Your task to perform on an android device: Go to Amazon Image 0: 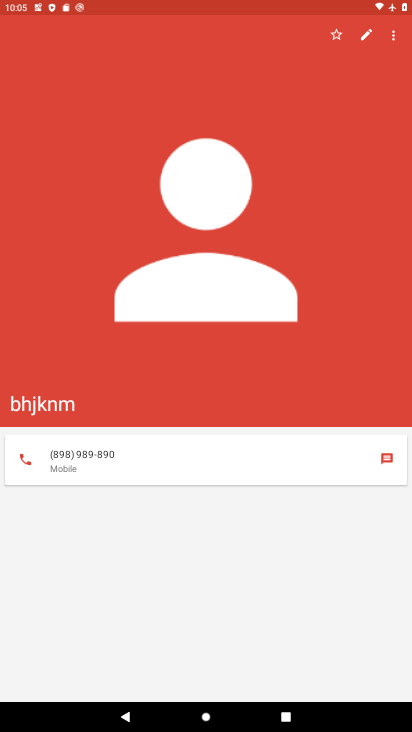
Step 0: press home button
Your task to perform on an android device: Go to Amazon Image 1: 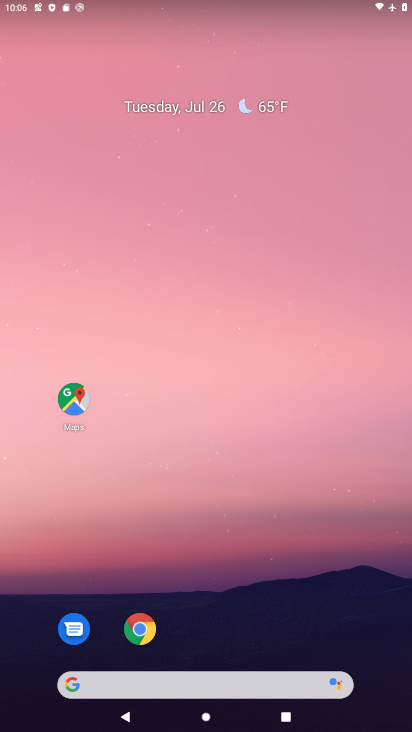
Step 1: drag from (236, 610) to (288, 7)
Your task to perform on an android device: Go to Amazon Image 2: 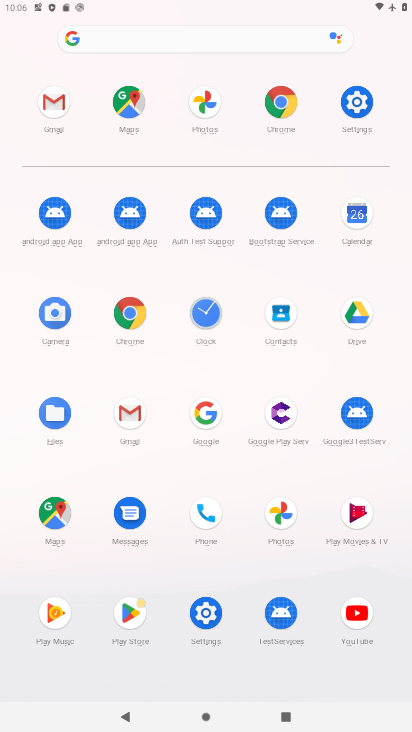
Step 2: click (283, 96)
Your task to perform on an android device: Go to Amazon Image 3: 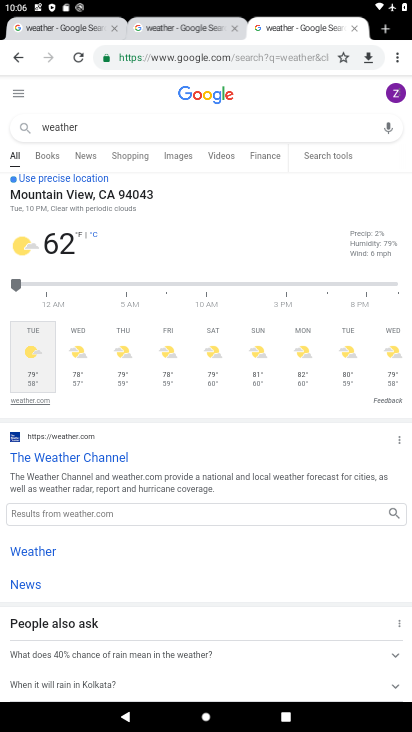
Step 3: click (250, 57)
Your task to perform on an android device: Go to Amazon Image 4: 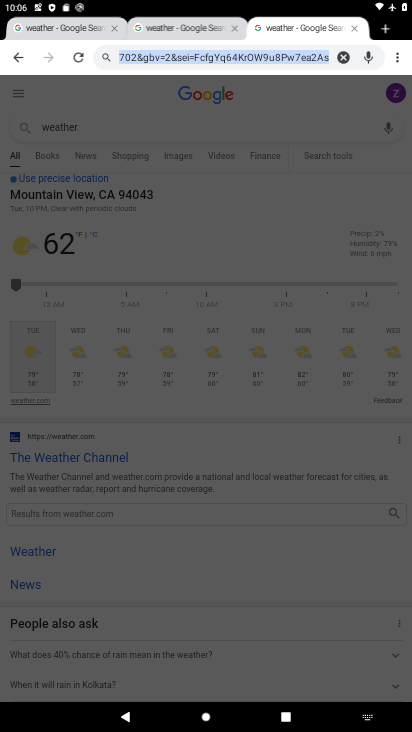
Step 4: type "amazon"
Your task to perform on an android device: Go to Amazon Image 5: 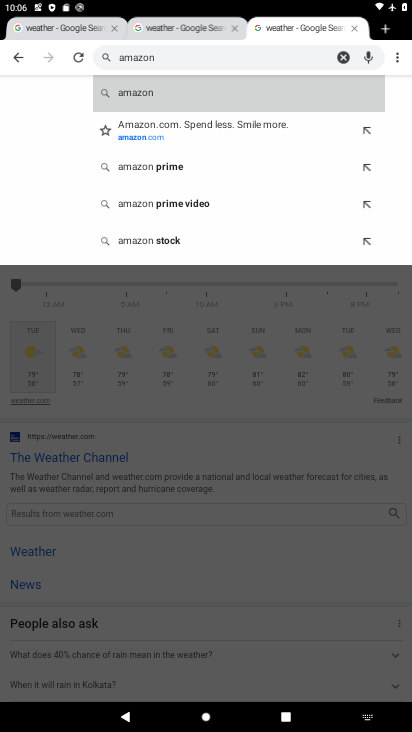
Step 5: click (191, 104)
Your task to perform on an android device: Go to Amazon Image 6: 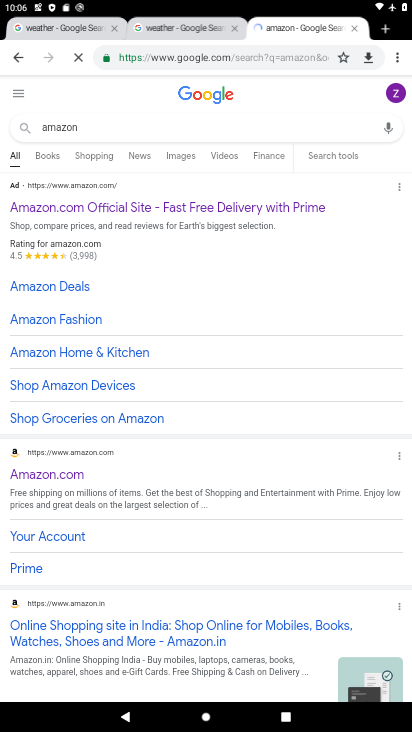
Step 6: click (47, 478)
Your task to perform on an android device: Go to Amazon Image 7: 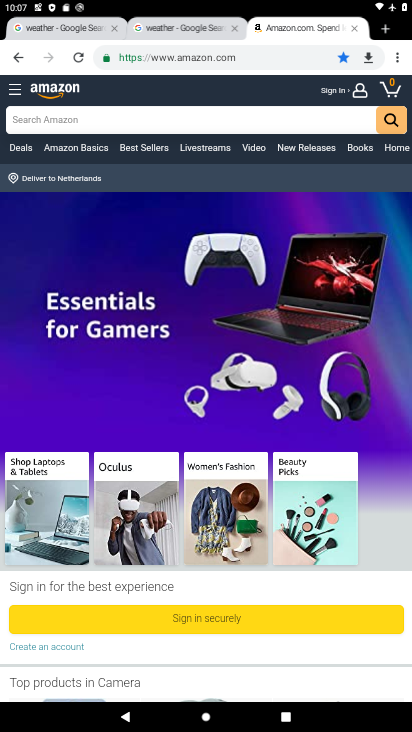
Step 7: task complete